Your task to perform on an android device: Go to battery settings Image 0: 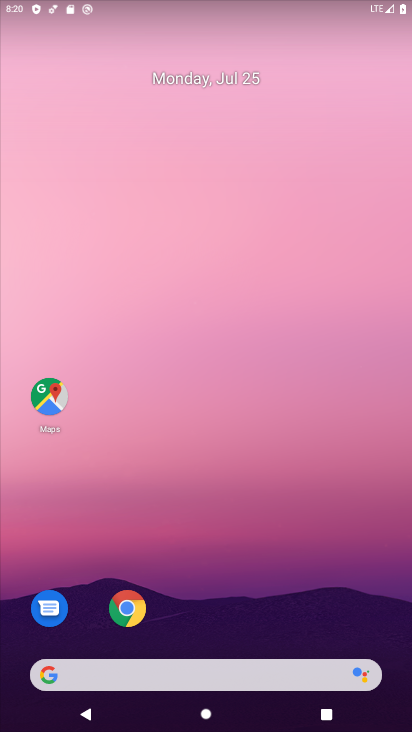
Step 0: drag from (224, 709) to (243, 329)
Your task to perform on an android device: Go to battery settings Image 1: 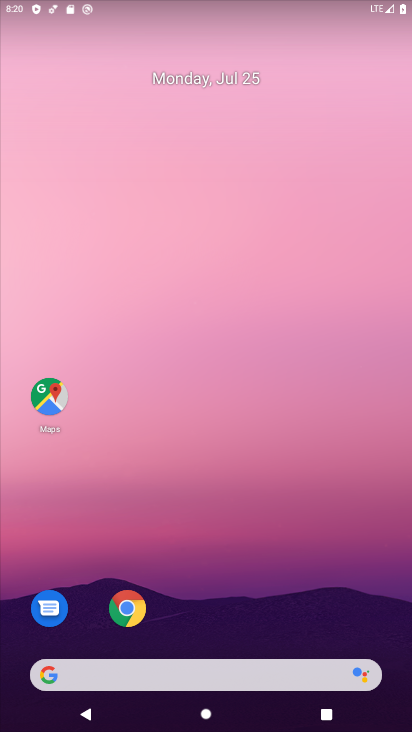
Step 1: drag from (219, 721) to (226, 235)
Your task to perform on an android device: Go to battery settings Image 2: 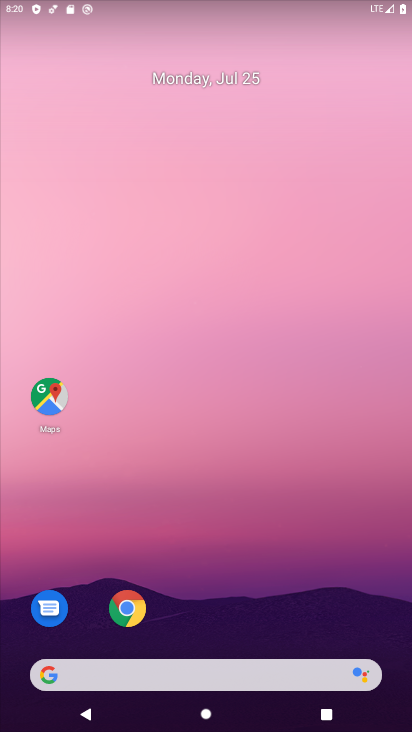
Step 2: drag from (219, 705) to (234, 9)
Your task to perform on an android device: Go to battery settings Image 3: 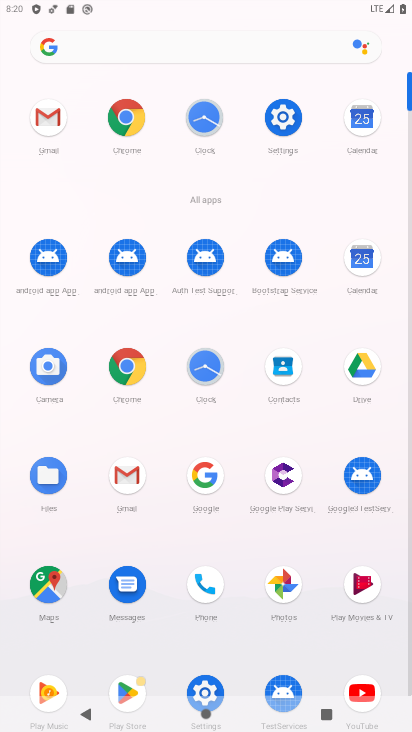
Step 3: click (281, 117)
Your task to perform on an android device: Go to battery settings Image 4: 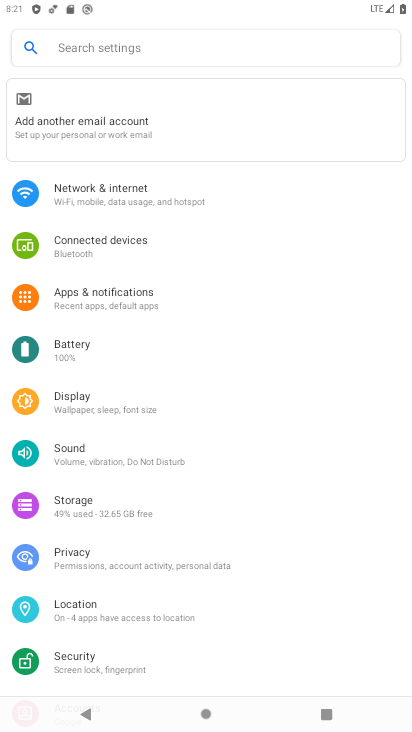
Step 4: click (71, 348)
Your task to perform on an android device: Go to battery settings Image 5: 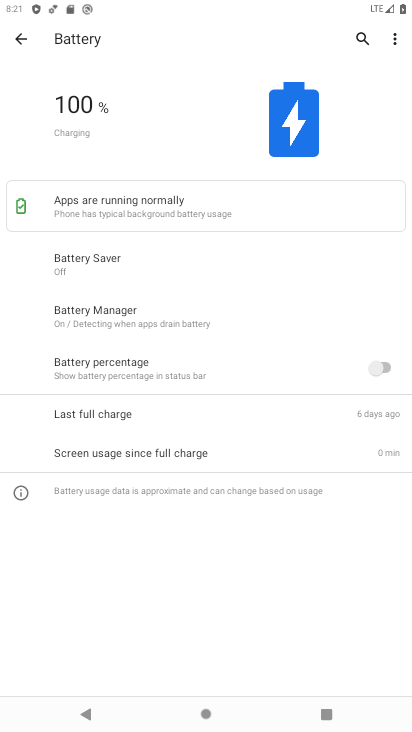
Step 5: task complete